Your task to perform on an android device: Open Google Maps and go to "Timeline" Image 0: 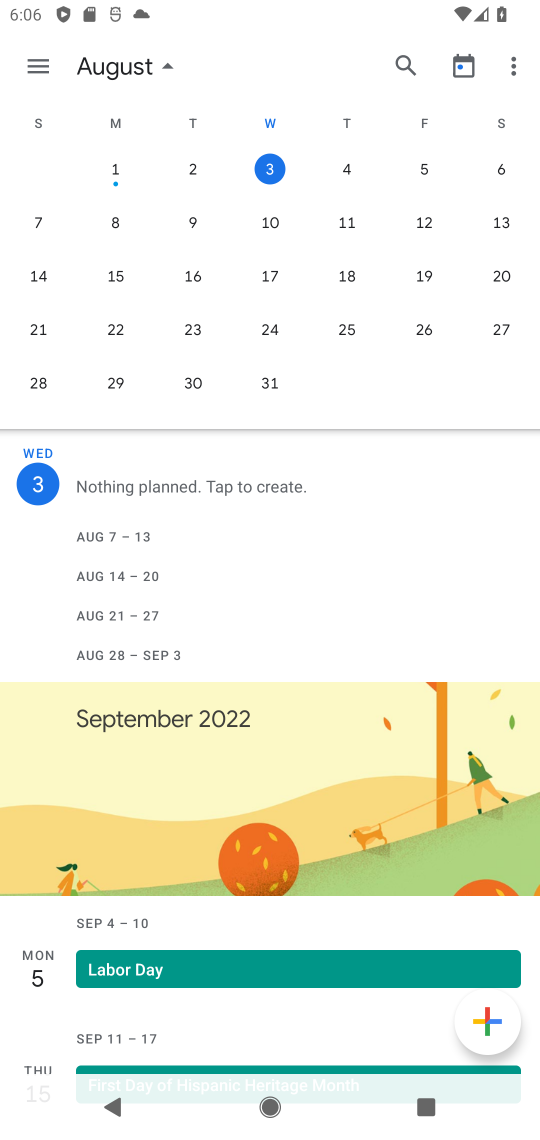
Step 0: press home button
Your task to perform on an android device: Open Google Maps and go to "Timeline" Image 1: 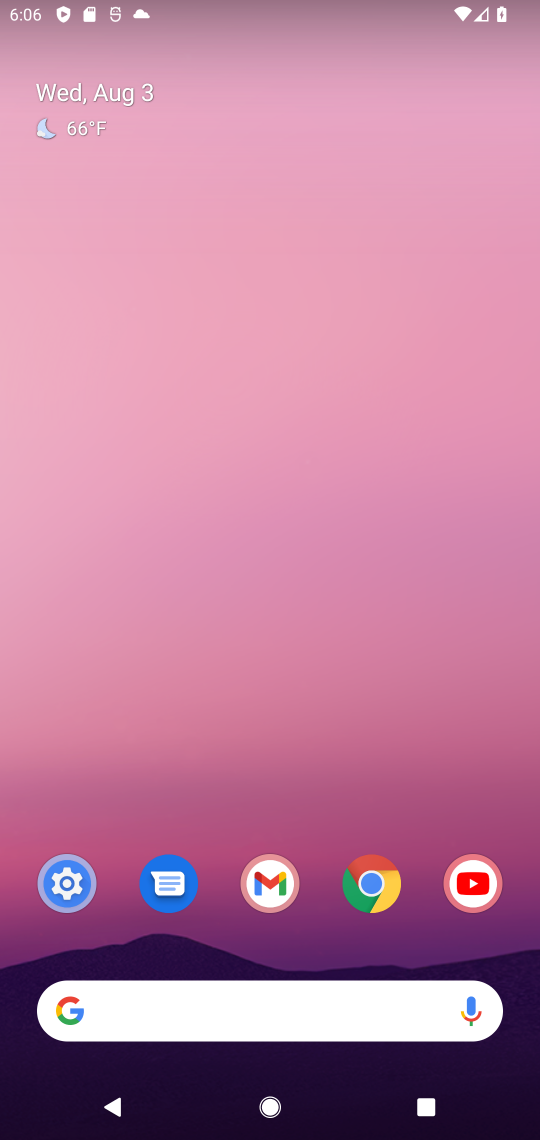
Step 1: drag from (284, 784) to (286, 261)
Your task to perform on an android device: Open Google Maps and go to "Timeline" Image 2: 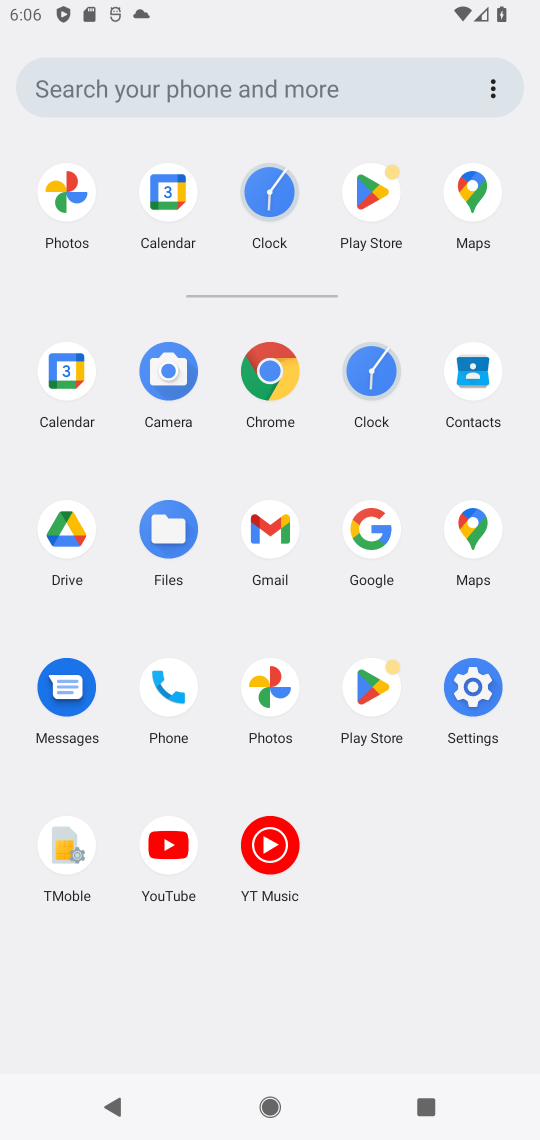
Step 2: click (471, 178)
Your task to perform on an android device: Open Google Maps and go to "Timeline" Image 3: 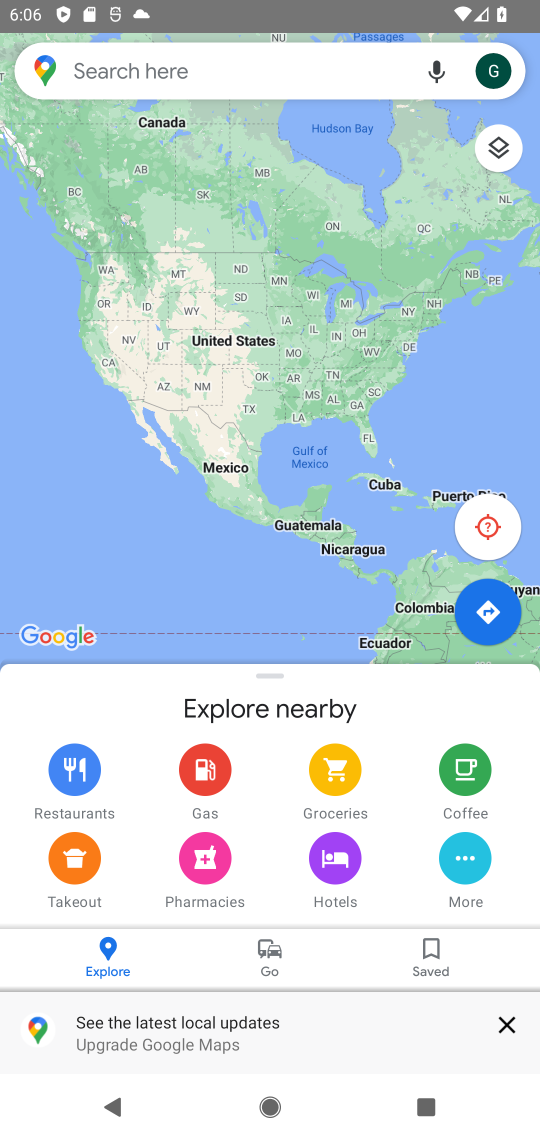
Step 3: task complete